Your task to perform on an android device: Is it going to rain today? Image 0: 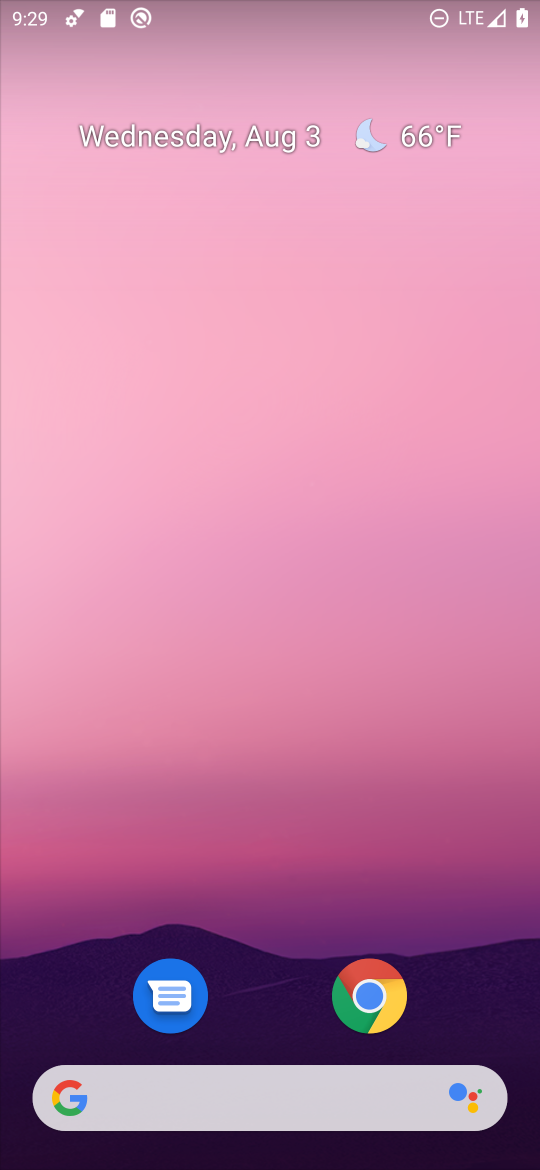
Step 0: click (399, 133)
Your task to perform on an android device: Is it going to rain today? Image 1: 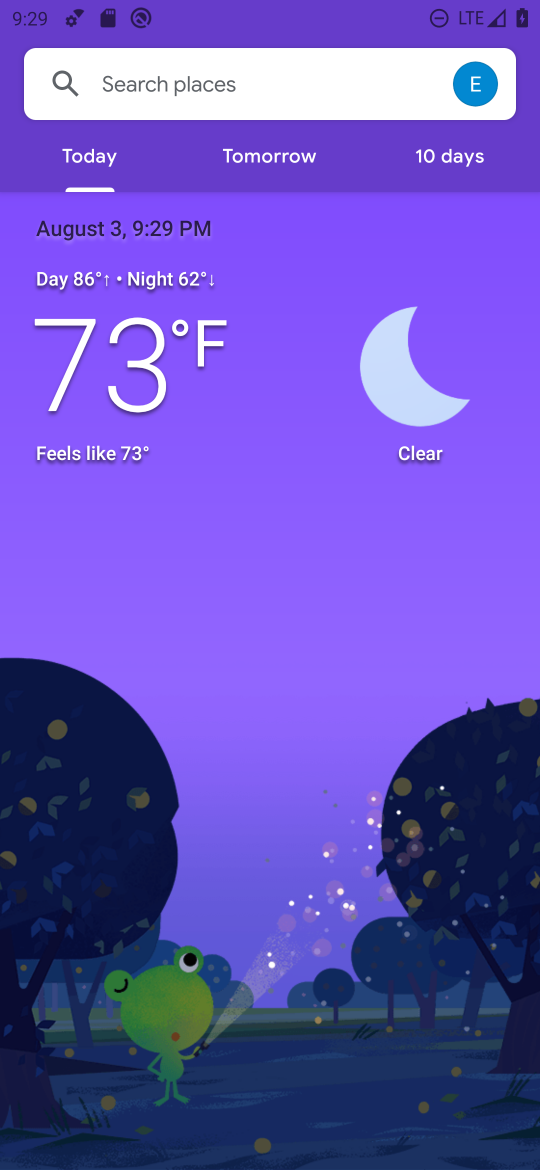
Step 1: task complete